Your task to perform on an android device: Search for Italian restaurants on Maps Image 0: 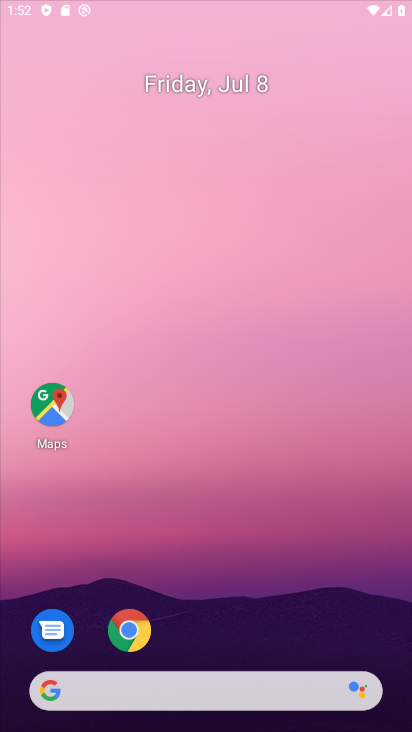
Step 0: click (259, 50)
Your task to perform on an android device: Search for Italian restaurants on Maps Image 1: 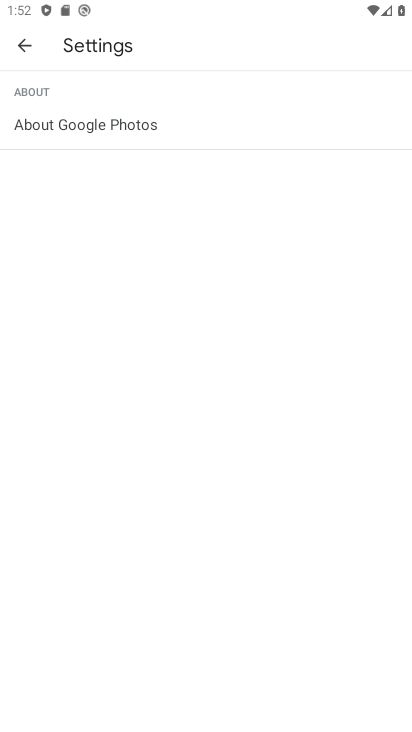
Step 1: press home button
Your task to perform on an android device: Search for Italian restaurants on Maps Image 2: 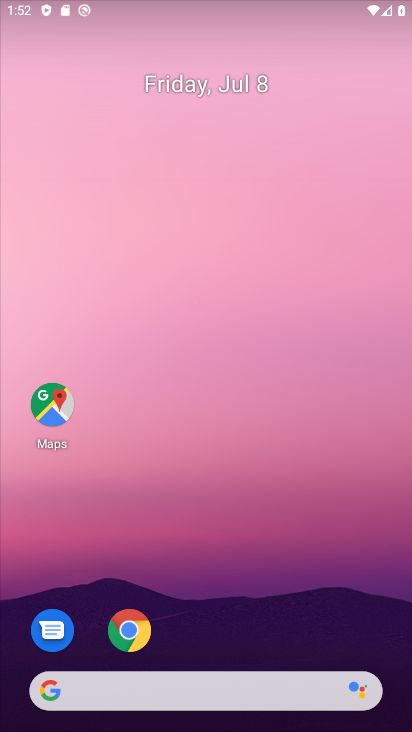
Step 2: drag from (253, 637) to (163, 67)
Your task to perform on an android device: Search for Italian restaurants on Maps Image 3: 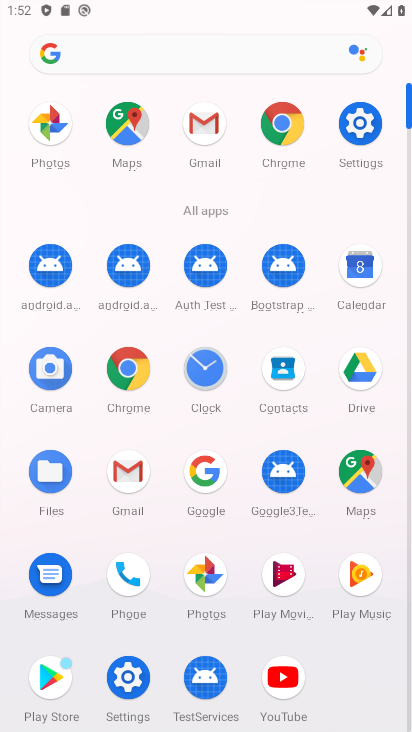
Step 3: click (368, 476)
Your task to perform on an android device: Search for Italian restaurants on Maps Image 4: 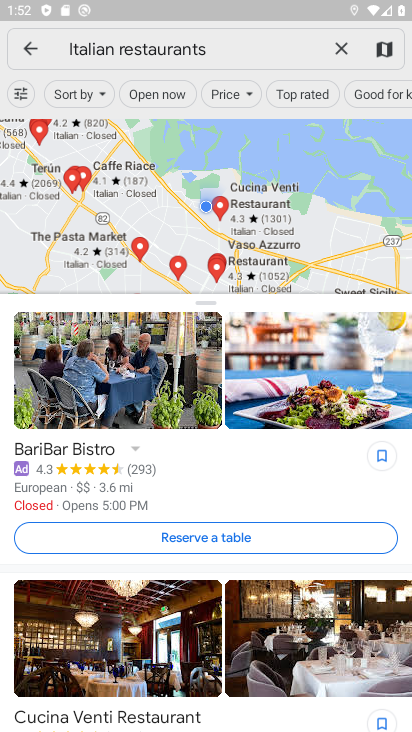
Step 4: task complete